Your task to perform on an android device: Open ESPN.com Image 0: 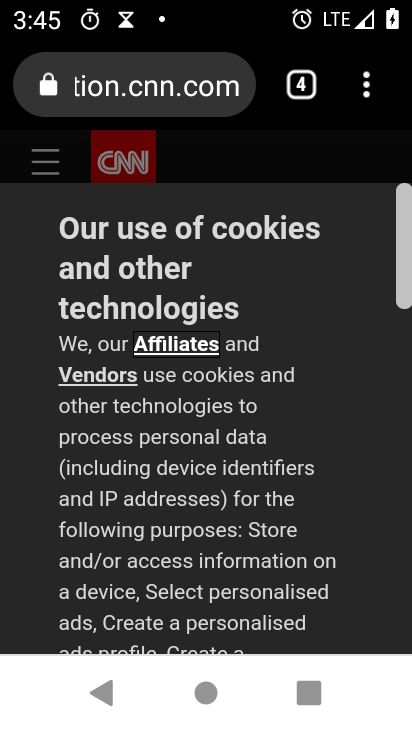
Step 0: press home button
Your task to perform on an android device: Open ESPN.com Image 1: 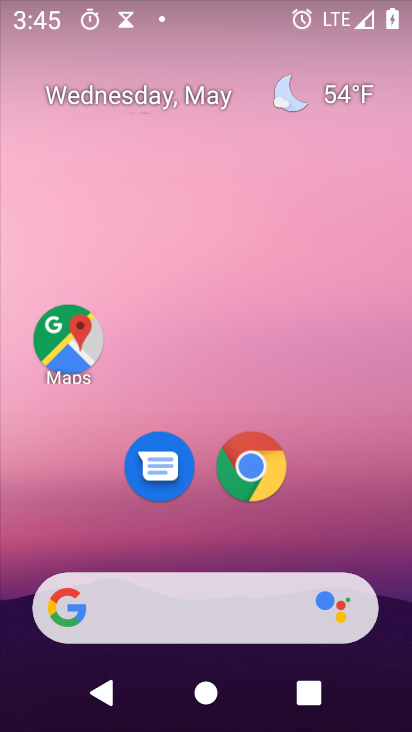
Step 1: click (273, 477)
Your task to perform on an android device: Open ESPN.com Image 2: 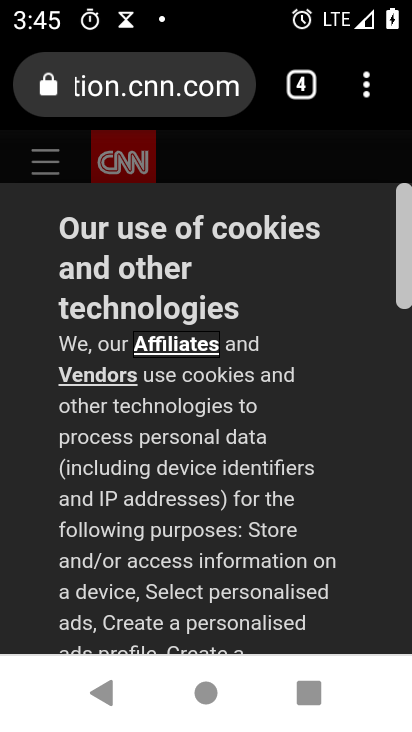
Step 2: click (203, 101)
Your task to perform on an android device: Open ESPN.com Image 3: 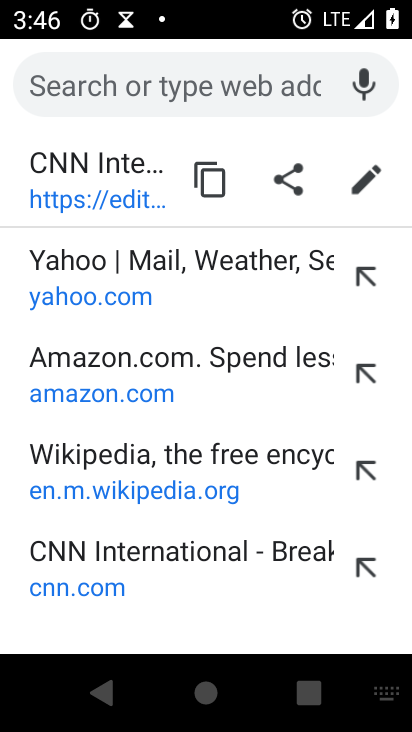
Step 3: type "espn.com"
Your task to perform on an android device: Open ESPN.com Image 4: 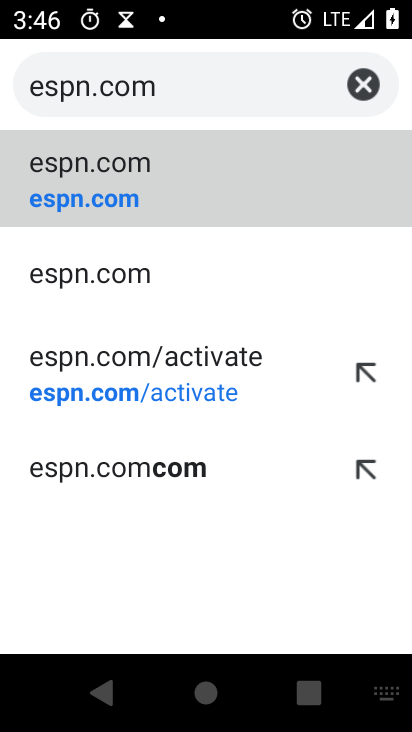
Step 4: click (149, 195)
Your task to perform on an android device: Open ESPN.com Image 5: 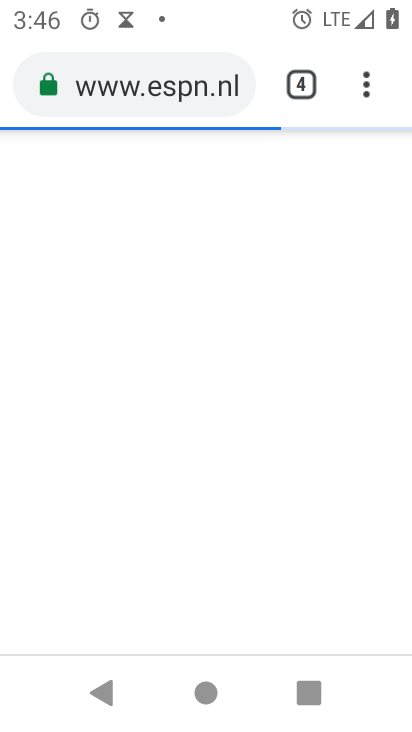
Step 5: task complete